Your task to perform on an android device: Search for "razer kraken" on costco.com, select the first entry, add it to the cart, then select checkout. Image 0: 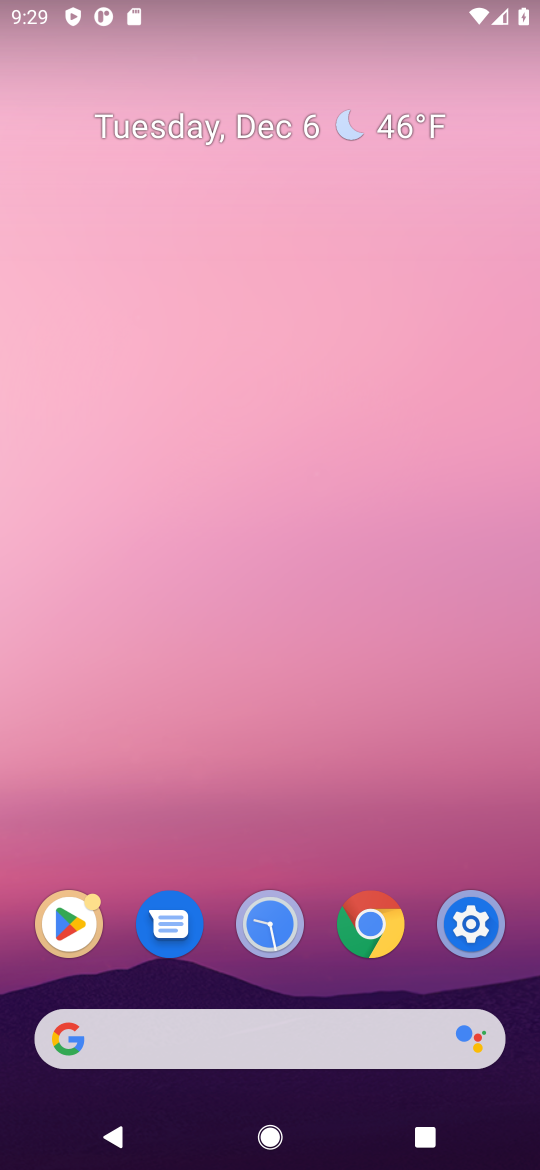
Step 0: click (350, 1054)
Your task to perform on an android device: Search for "razer kraken" on costco.com, select the first entry, add it to the cart, then select checkout. Image 1: 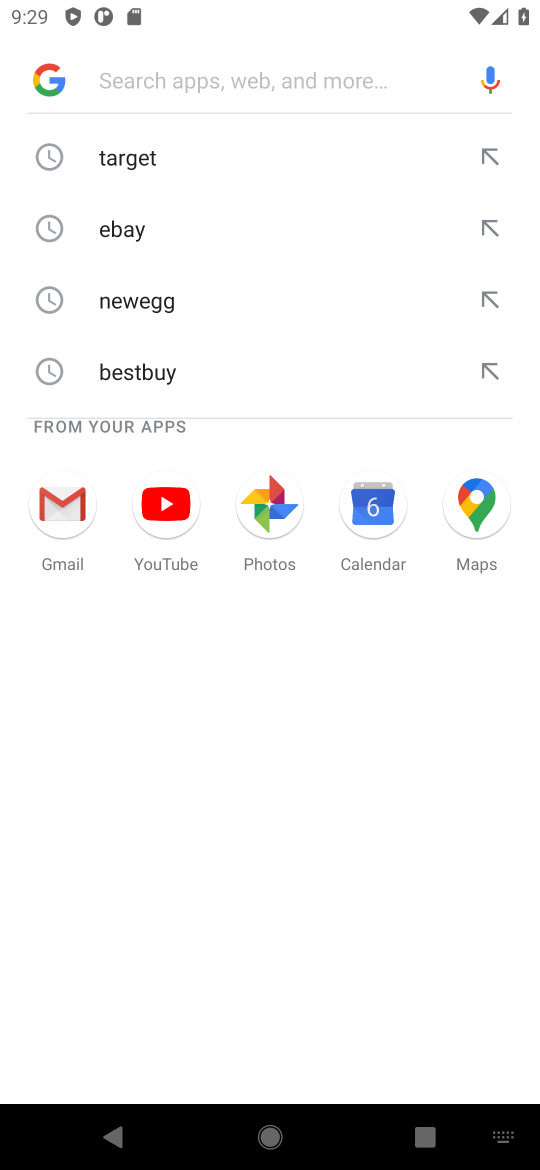
Step 1: type "costco"
Your task to perform on an android device: Search for "razer kraken" on costco.com, select the first entry, add it to the cart, then select checkout. Image 2: 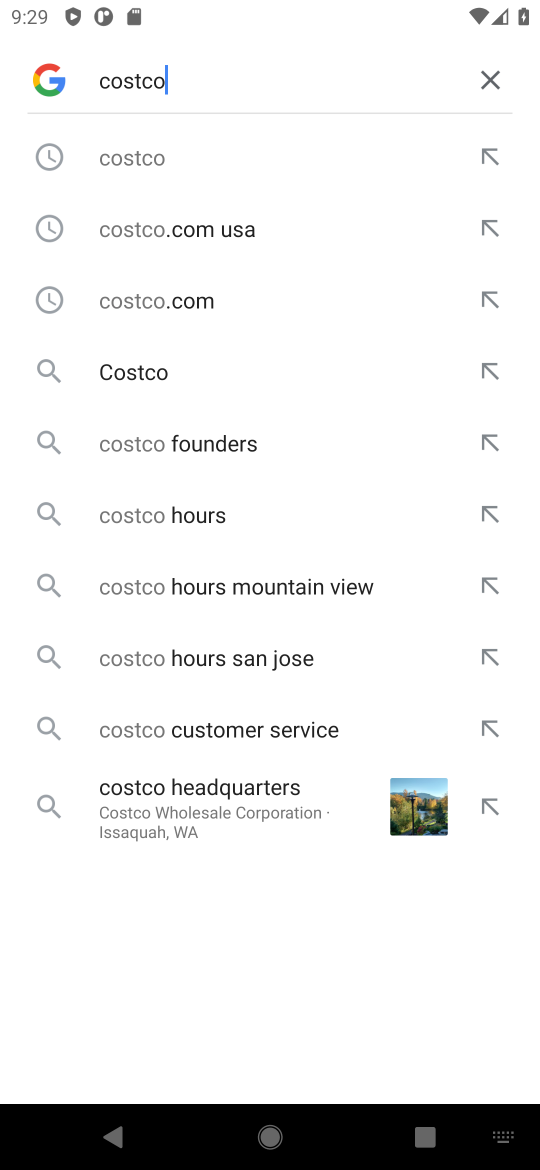
Step 2: click (124, 155)
Your task to perform on an android device: Search for "razer kraken" on costco.com, select the first entry, add it to the cart, then select checkout. Image 3: 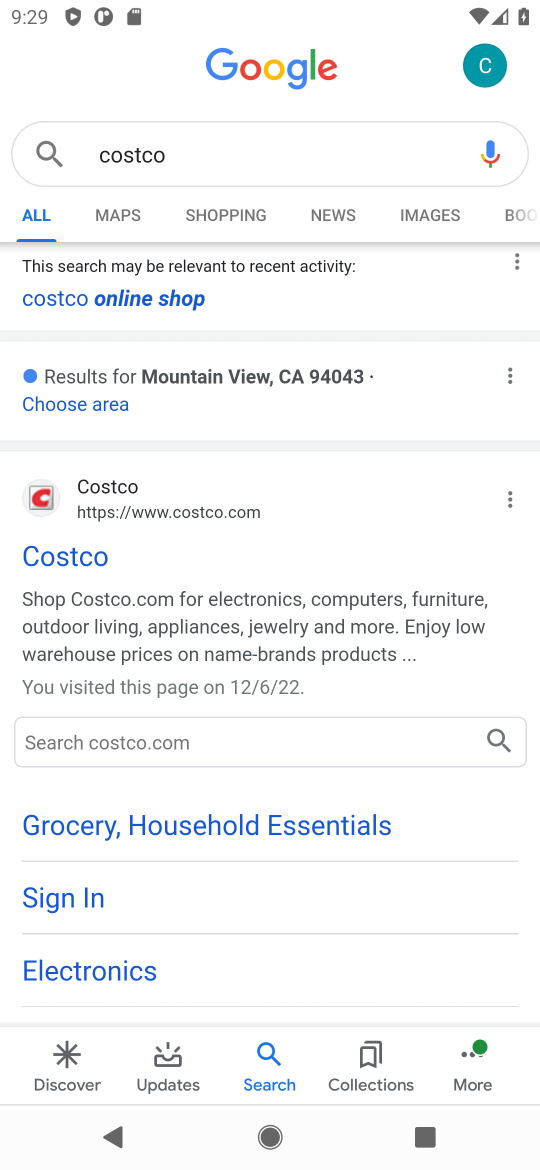
Step 3: click (85, 567)
Your task to perform on an android device: Search for "razer kraken" on costco.com, select the first entry, add it to the cart, then select checkout. Image 4: 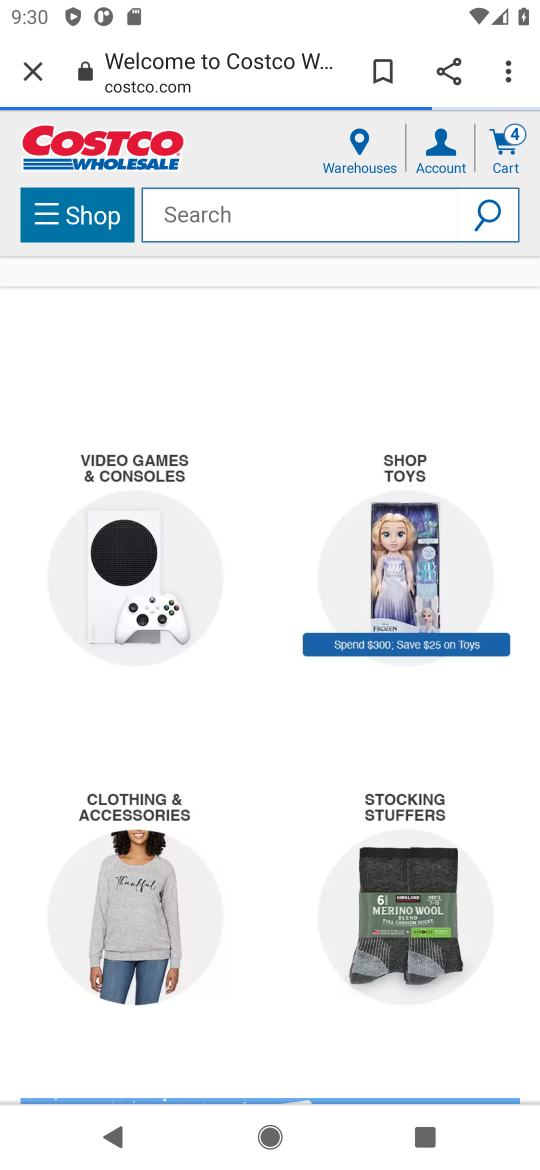
Step 4: click (394, 232)
Your task to perform on an android device: Search for "razer kraken" on costco.com, select the first entry, add it to the cart, then select checkout. Image 5: 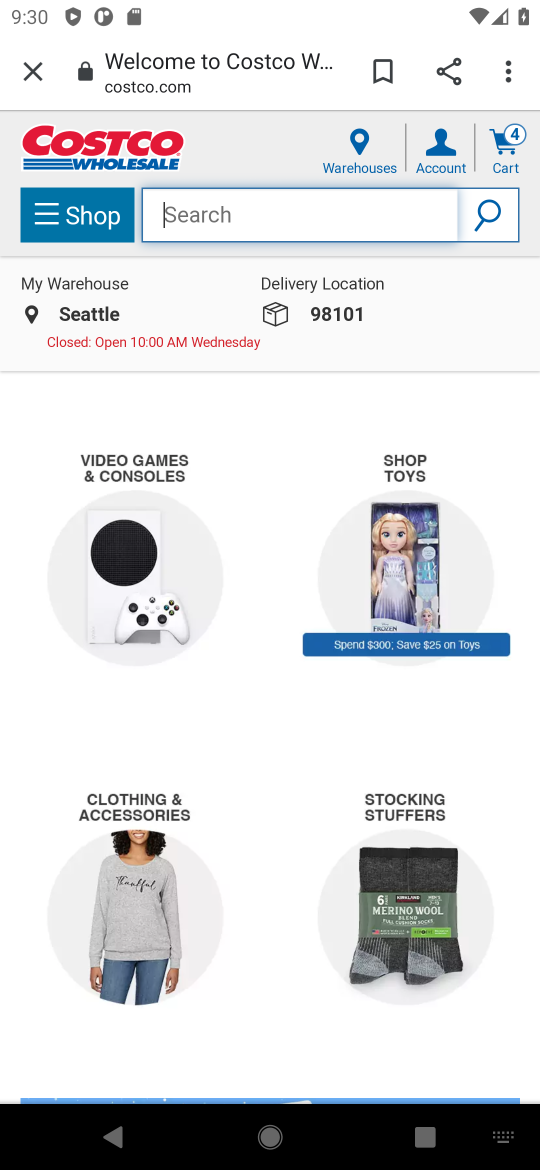
Step 5: type "razer karken"
Your task to perform on an android device: Search for "razer kraken" on costco.com, select the first entry, add it to the cart, then select checkout. Image 6: 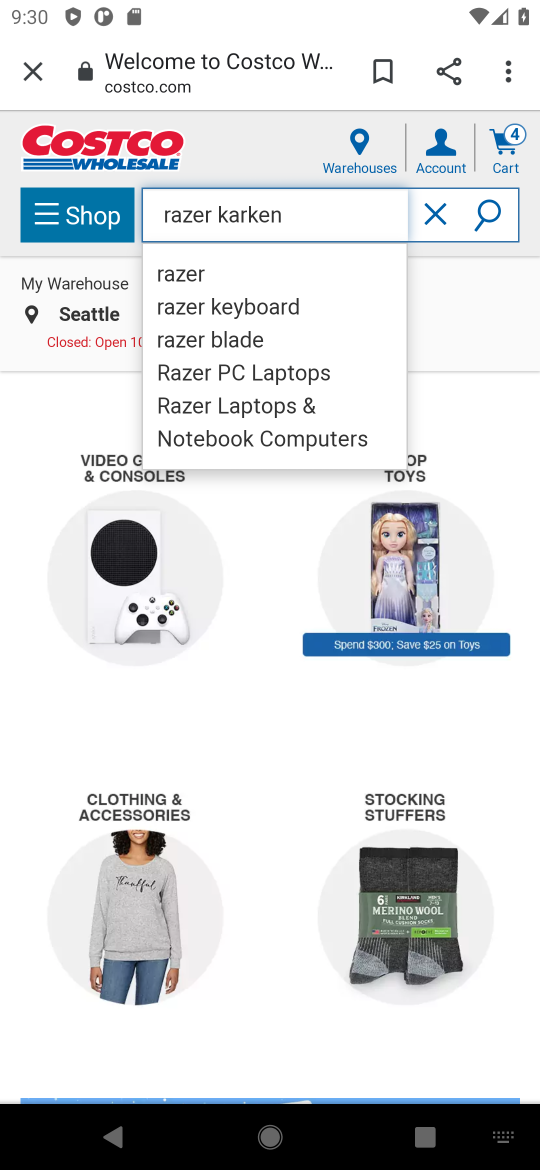
Step 6: click (491, 215)
Your task to perform on an android device: Search for "razer kraken" on costco.com, select the first entry, add it to the cart, then select checkout. Image 7: 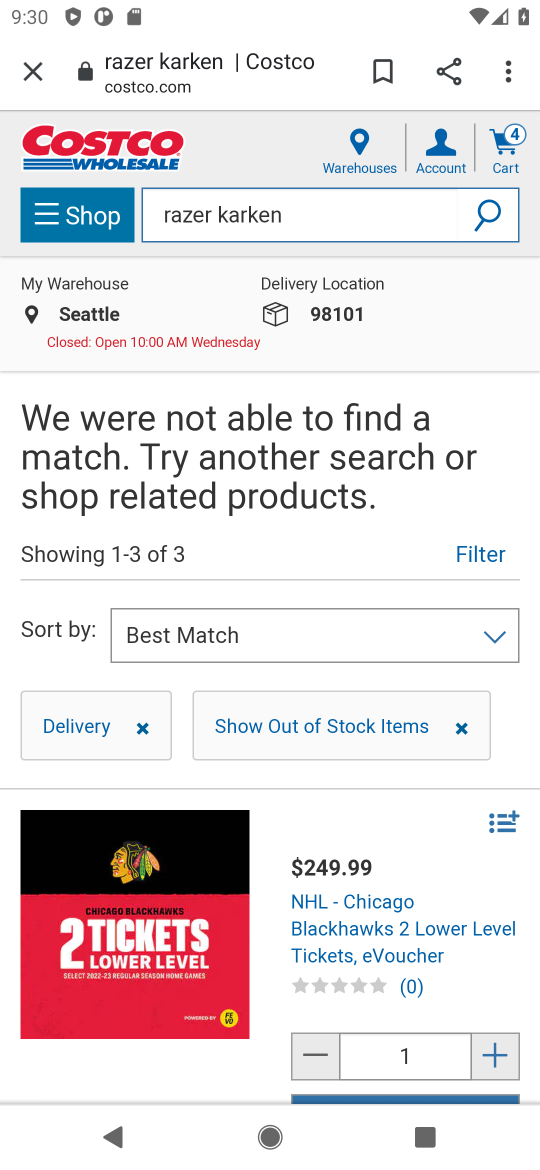
Step 7: drag from (157, 1069) to (222, 631)
Your task to perform on an android device: Search for "razer kraken" on costco.com, select the first entry, add it to the cart, then select checkout. Image 8: 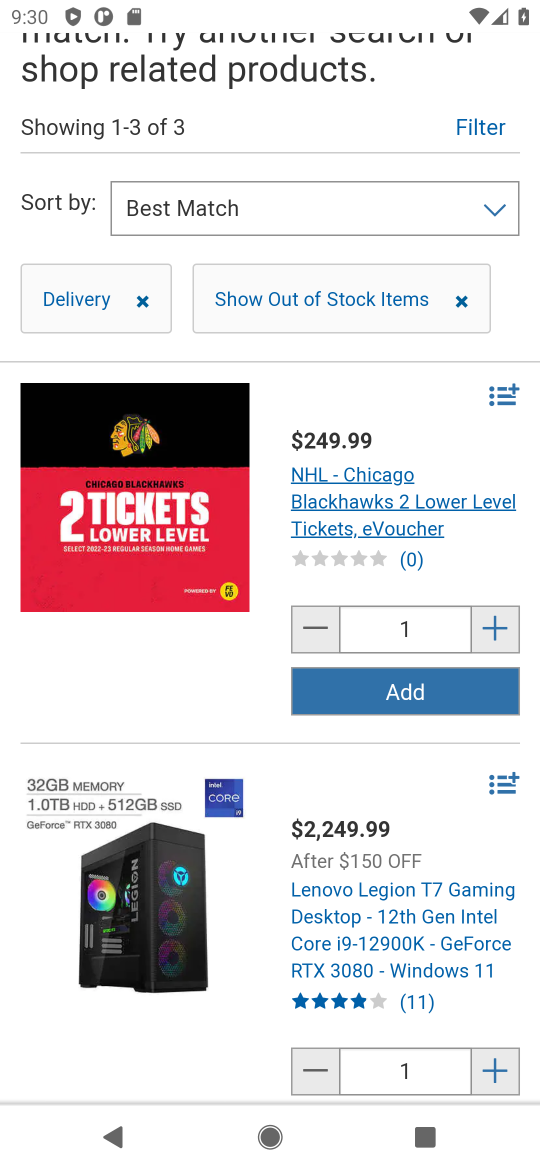
Step 8: click (349, 701)
Your task to perform on an android device: Search for "razer kraken" on costco.com, select the first entry, add it to the cart, then select checkout. Image 9: 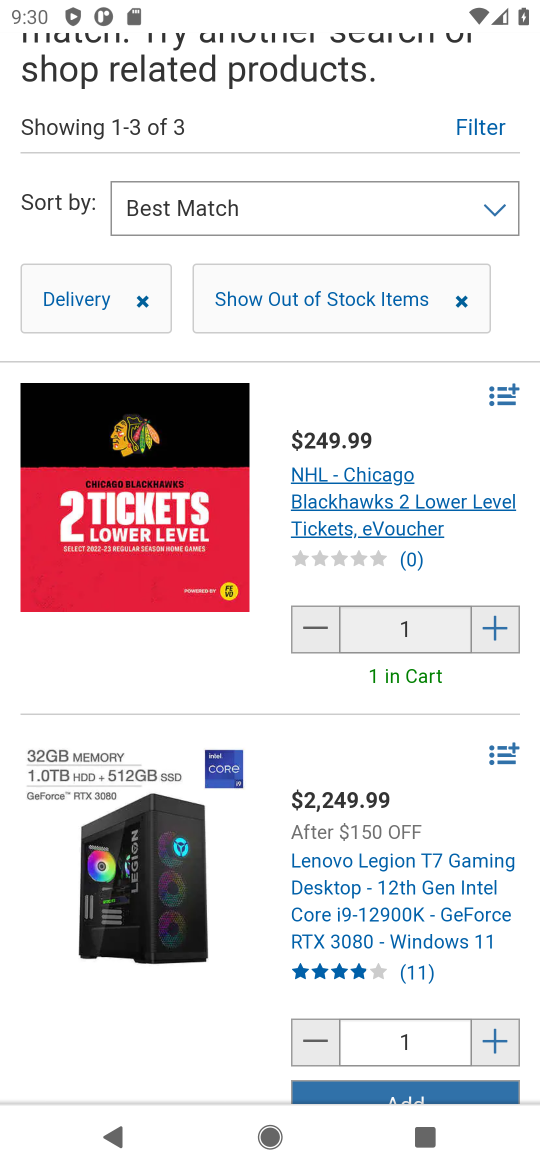
Step 9: task complete